Your task to perform on an android device: set the stopwatch Image 0: 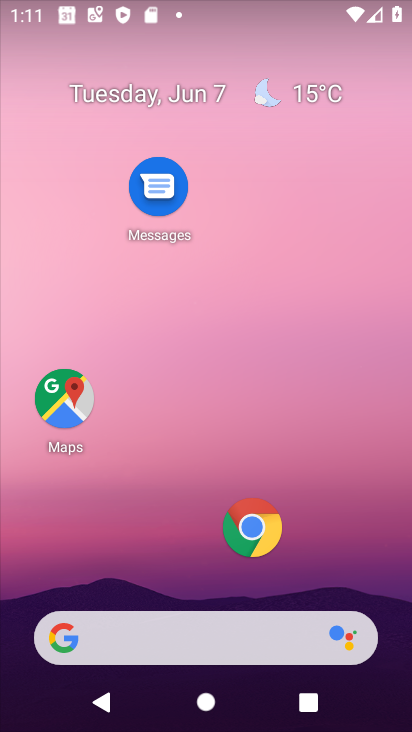
Step 0: drag from (196, 604) to (198, 276)
Your task to perform on an android device: set the stopwatch Image 1: 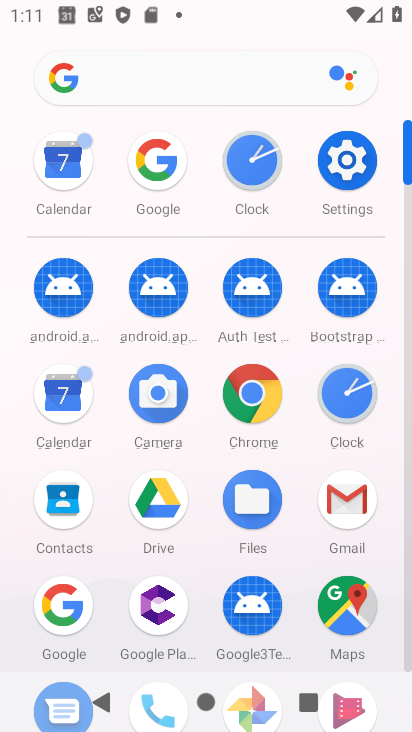
Step 1: click (250, 174)
Your task to perform on an android device: set the stopwatch Image 2: 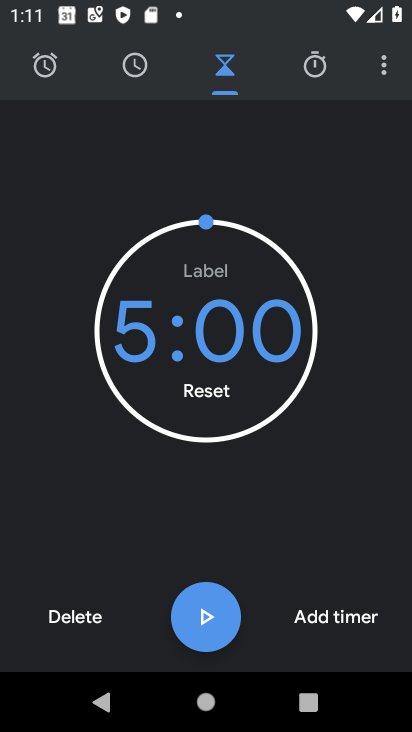
Step 2: click (326, 63)
Your task to perform on an android device: set the stopwatch Image 3: 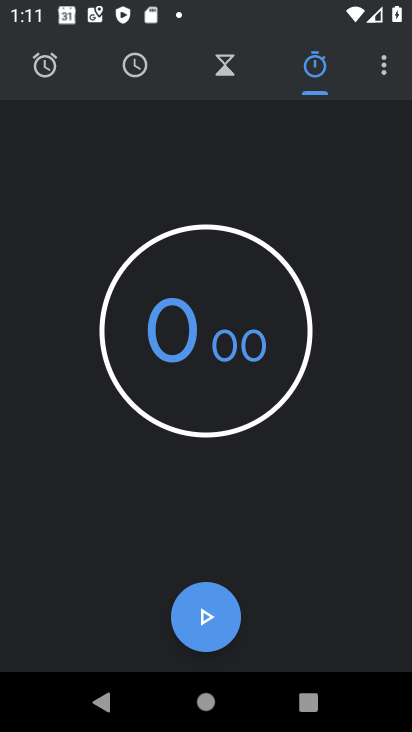
Step 3: click (210, 619)
Your task to perform on an android device: set the stopwatch Image 4: 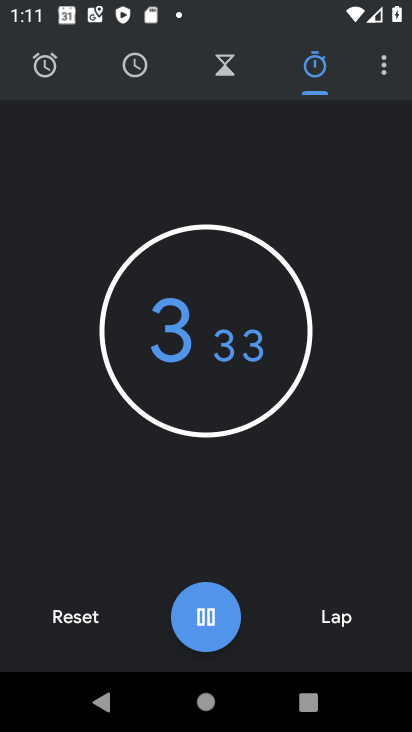
Step 4: click (208, 621)
Your task to perform on an android device: set the stopwatch Image 5: 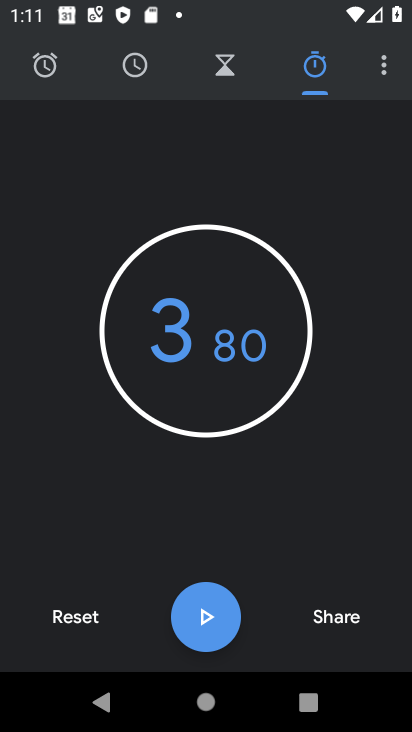
Step 5: task complete